Your task to perform on an android device: Show me popular videos on Youtube Image 0: 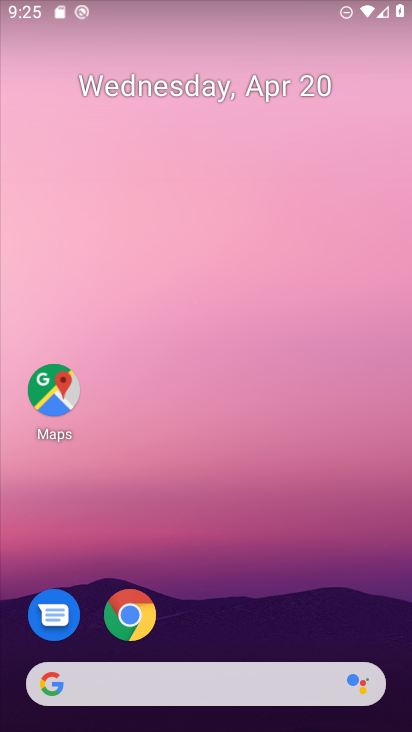
Step 0: drag from (243, 619) to (301, 96)
Your task to perform on an android device: Show me popular videos on Youtube Image 1: 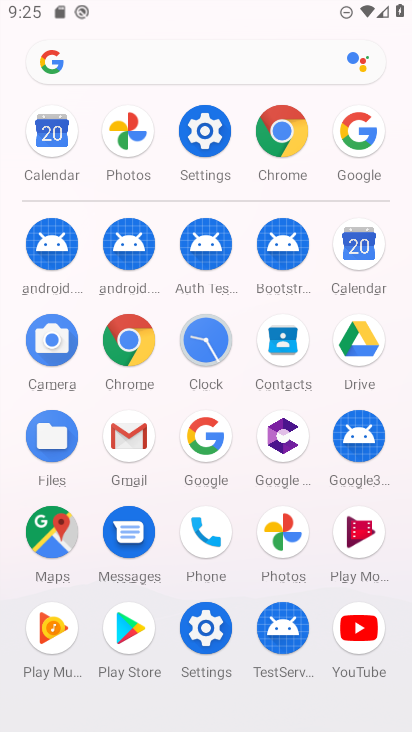
Step 1: drag from (243, 584) to (308, 287)
Your task to perform on an android device: Show me popular videos on Youtube Image 2: 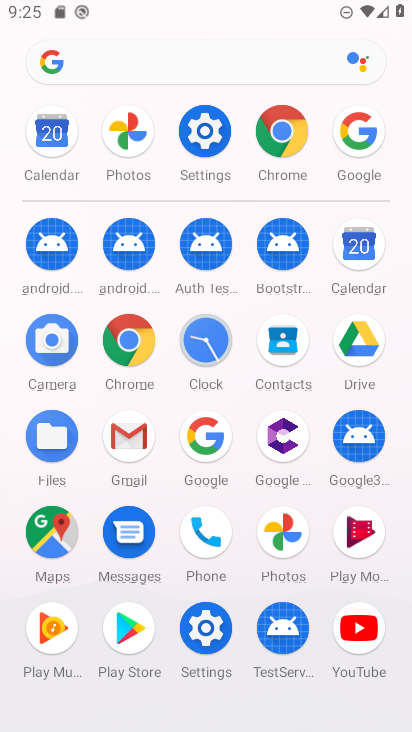
Step 2: click (359, 632)
Your task to perform on an android device: Show me popular videos on Youtube Image 3: 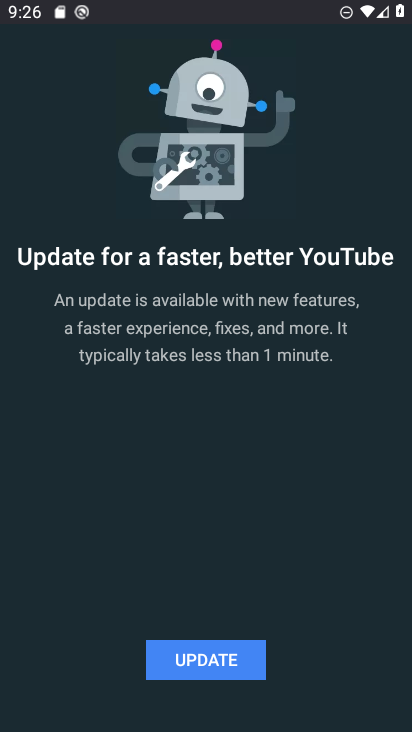
Step 3: click (218, 666)
Your task to perform on an android device: Show me popular videos on Youtube Image 4: 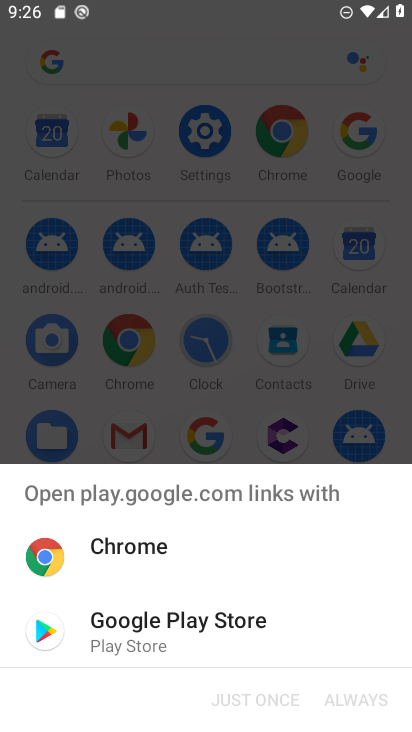
Step 4: click (226, 632)
Your task to perform on an android device: Show me popular videos on Youtube Image 5: 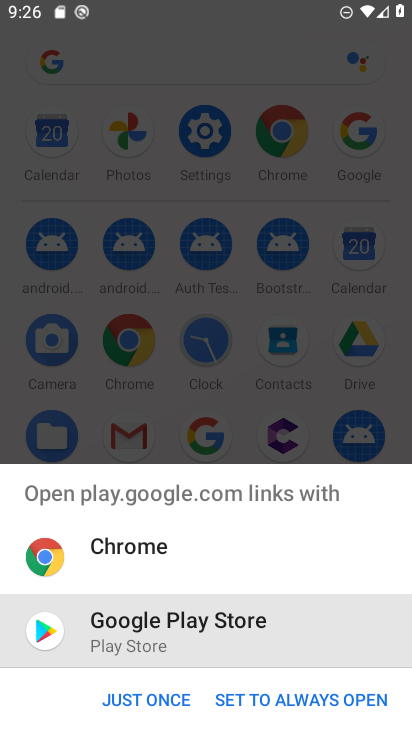
Step 5: click (166, 699)
Your task to perform on an android device: Show me popular videos on Youtube Image 6: 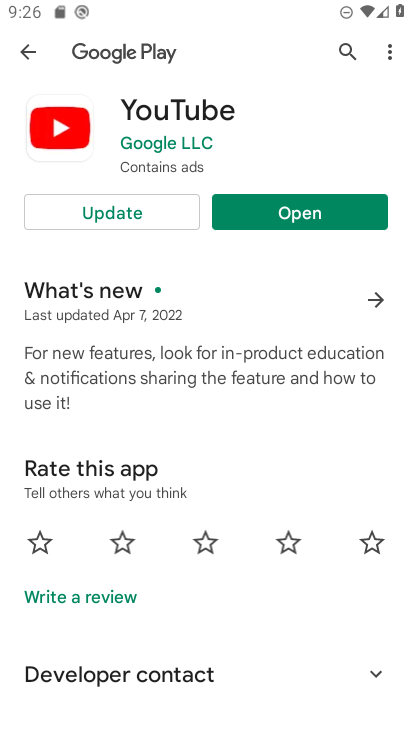
Step 6: click (124, 213)
Your task to perform on an android device: Show me popular videos on Youtube Image 7: 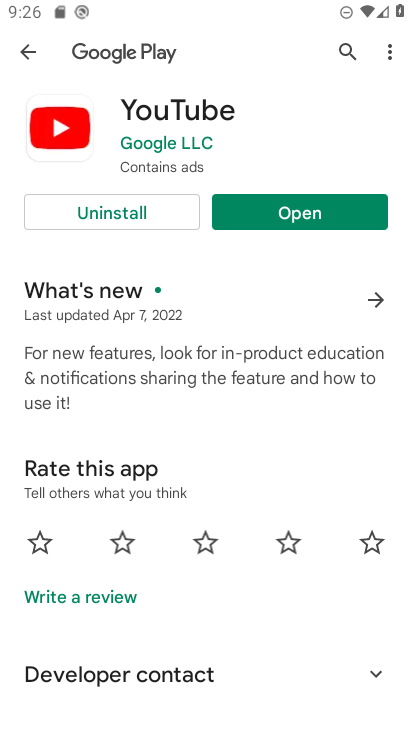
Step 7: click (276, 209)
Your task to perform on an android device: Show me popular videos on Youtube Image 8: 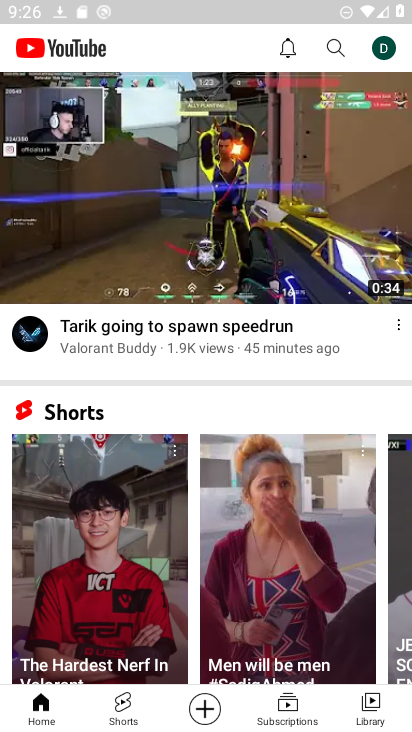
Step 8: click (335, 48)
Your task to perform on an android device: Show me popular videos on Youtube Image 9: 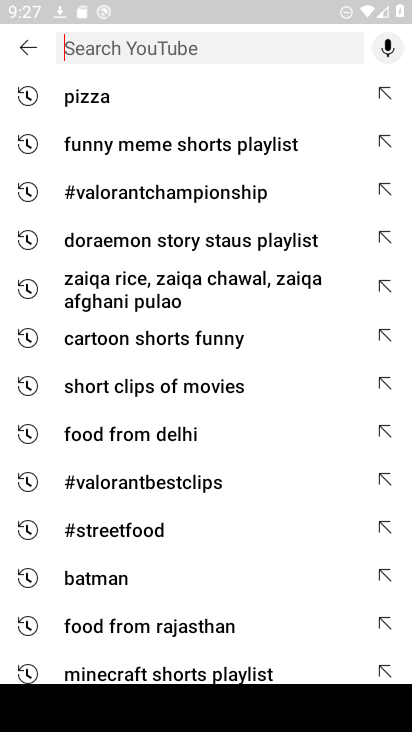
Step 9: click (260, 44)
Your task to perform on an android device: Show me popular videos on Youtube Image 10: 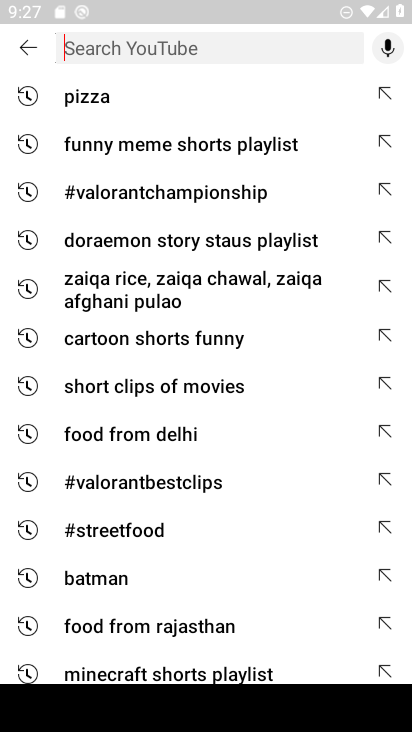
Step 10: type "popular videos"
Your task to perform on an android device: Show me popular videos on Youtube Image 11: 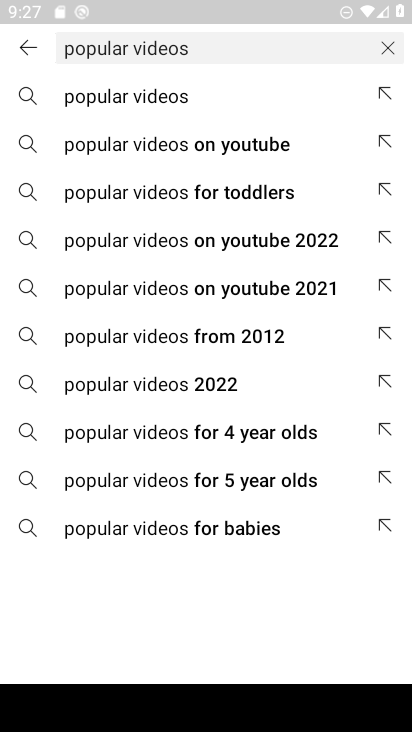
Step 11: click (213, 140)
Your task to perform on an android device: Show me popular videos on Youtube Image 12: 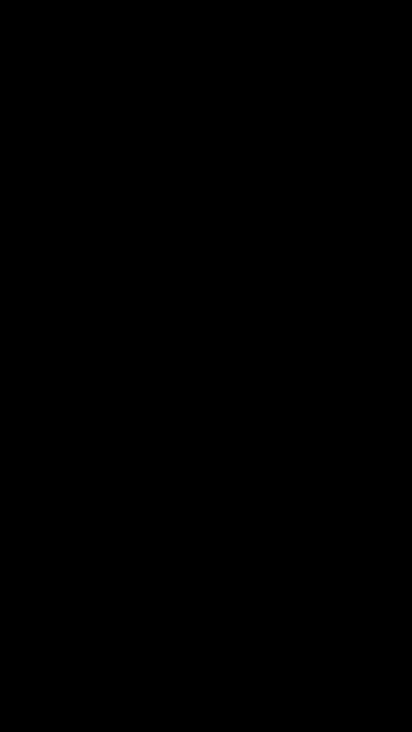
Step 12: task complete